Your task to perform on an android device: Empty the shopping cart on bestbuy. Add alienware area 51 to the cart on bestbuy, then select checkout. Image 0: 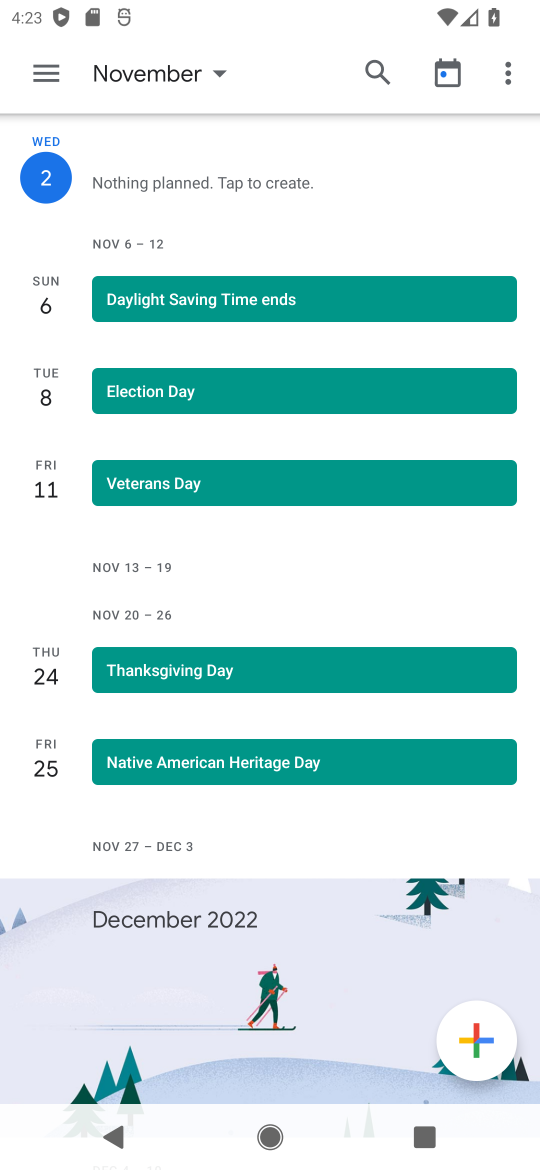
Step 0: press home button
Your task to perform on an android device: Empty the shopping cart on bestbuy. Add alienware area 51 to the cart on bestbuy, then select checkout. Image 1: 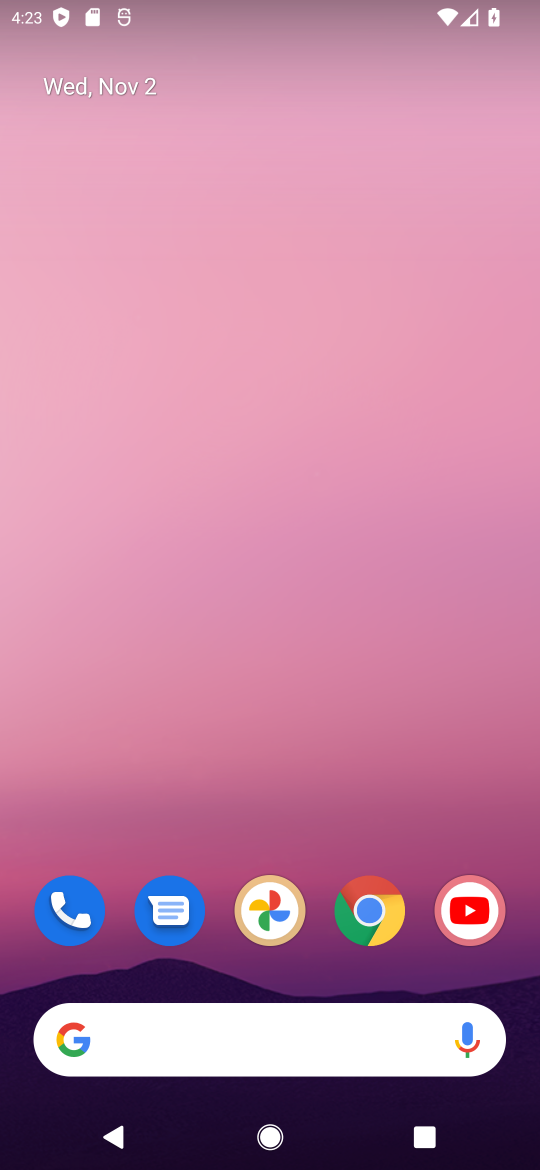
Step 1: click (377, 931)
Your task to perform on an android device: Empty the shopping cart on bestbuy. Add alienware area 51 to the cart on bestbuy, then select checkout. Image 2: 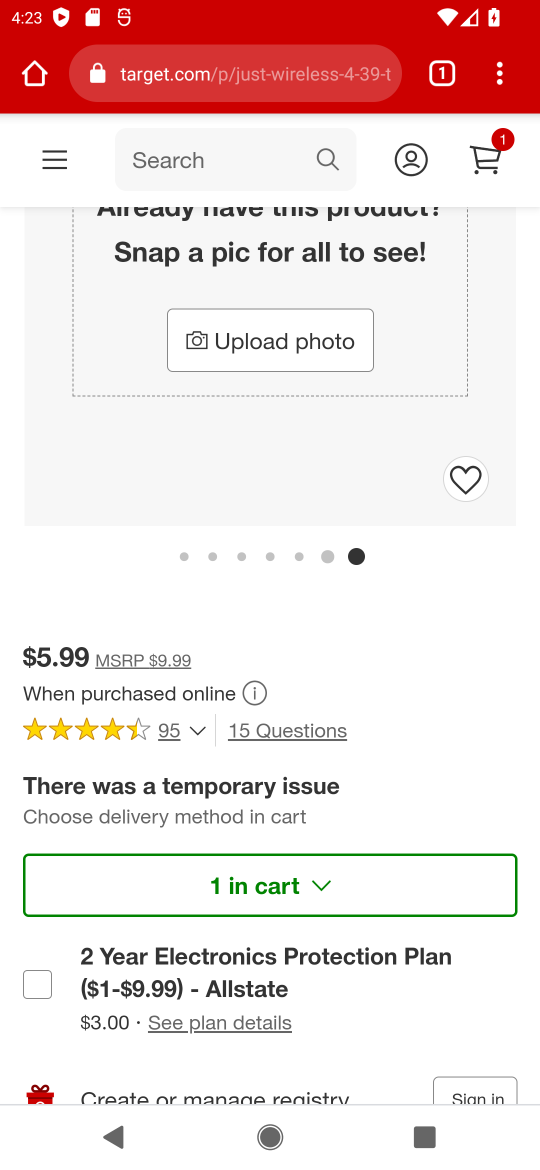
Step 2: click (134, 72)
Your task to perform on an android device: Empty the shopping cart on bestbuy. Add alienware area 51 to the cart on bestbuy, then select checkout. Image 3: 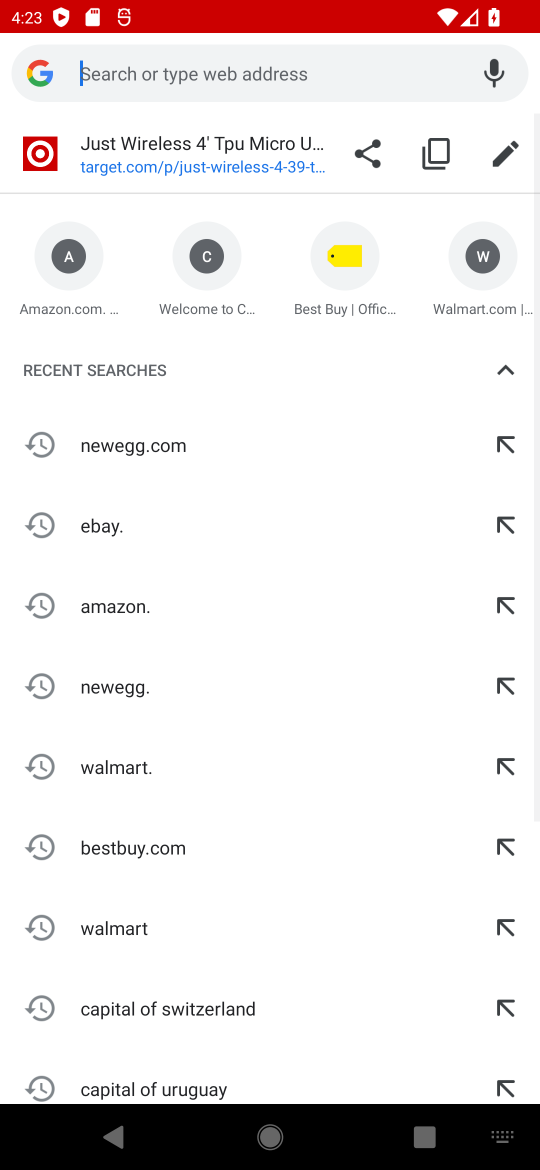
Step 3: click (368, 264)
Your task to perform on an android device: Empty the shopping cart on bestbuy. Add alienware area 51 to the cart on bestbuy, then select checkout. Image 4: 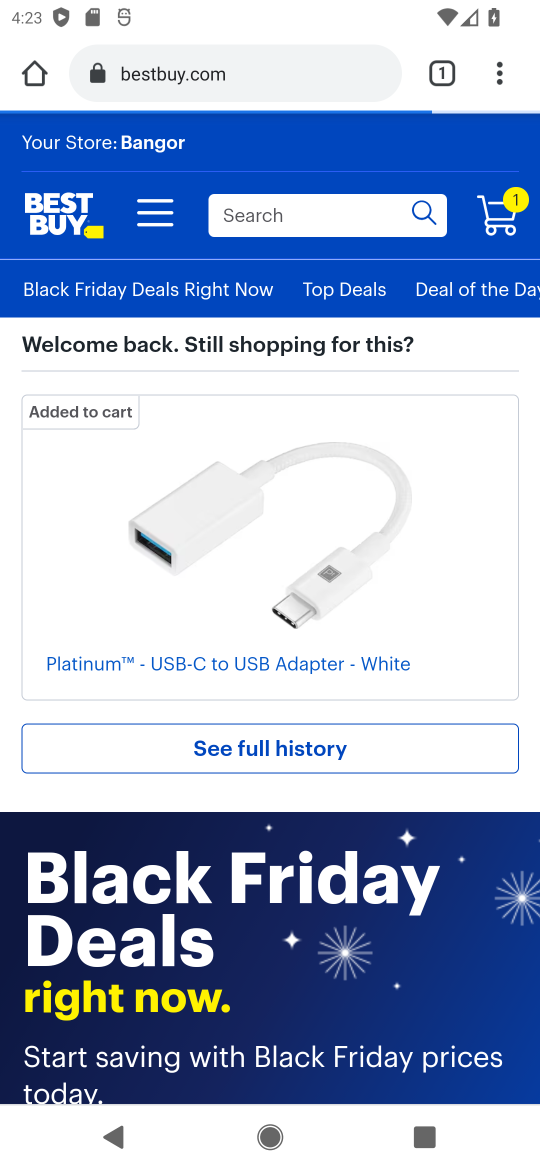
Step 4: click (245, 211)
Your task to perform on an android device: Empty the shopping cart on bestbuy. Add alienware area 51 to the cart on bestbuy, then select checkout. Image 5: 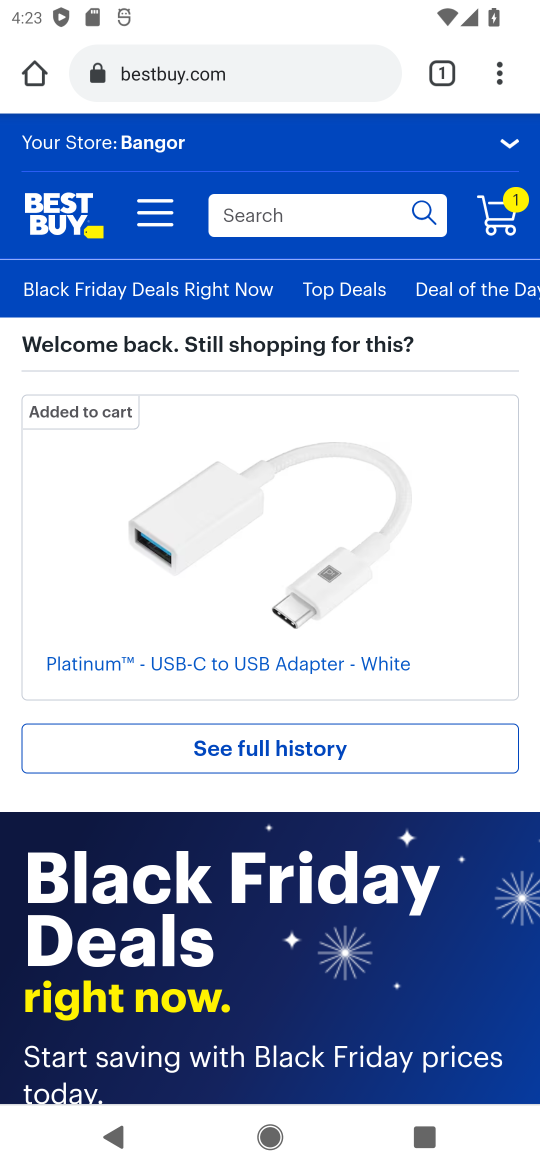
Step 5: click (293, 202)
Your task to perform on an android device: Empty the shopping cart on bestbuy. Add alienware area 51 to the cart on bestbuy, then select checkout. Image 6: 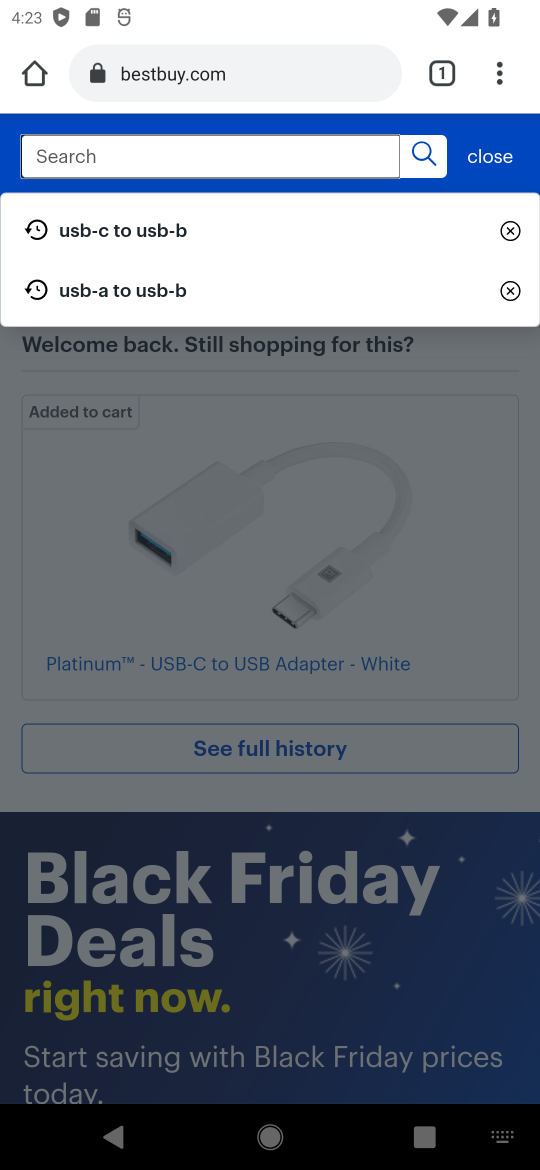
Step 6: type "alienware area 51 "
Your task to perform on an android device: Empty the shopping cart on bestbuy. Add alienware area 51 to the cart on bestbuy, then select checkout. Image 7: 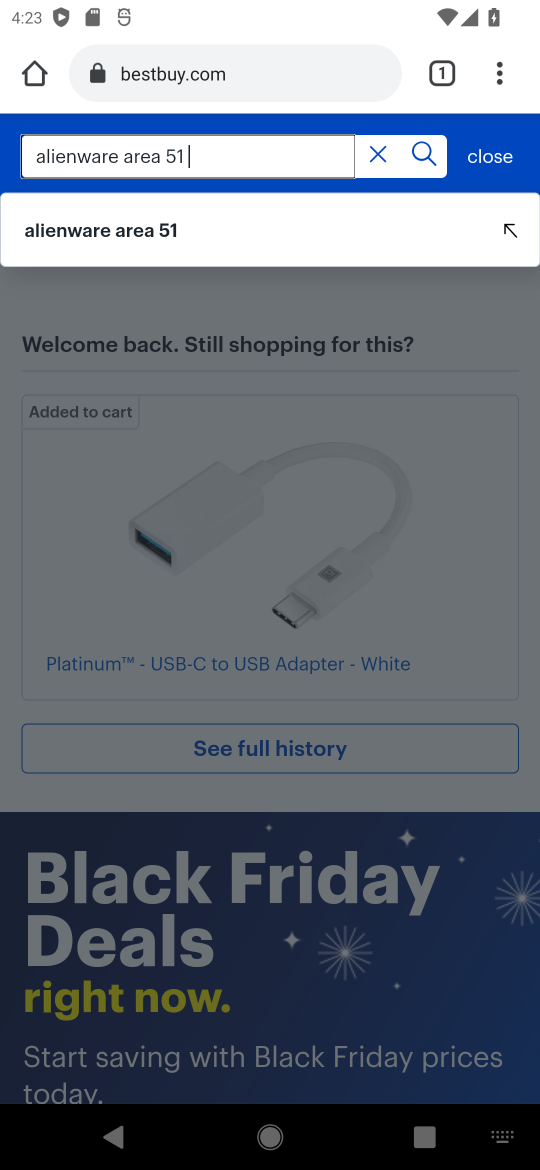
Step 7: click (150, 238)
Your task to perform on an android device: Empty the shopping cart on bestbuy. Add alienware area 51 to the cart on bestbuy, then select checkout. Image 8: 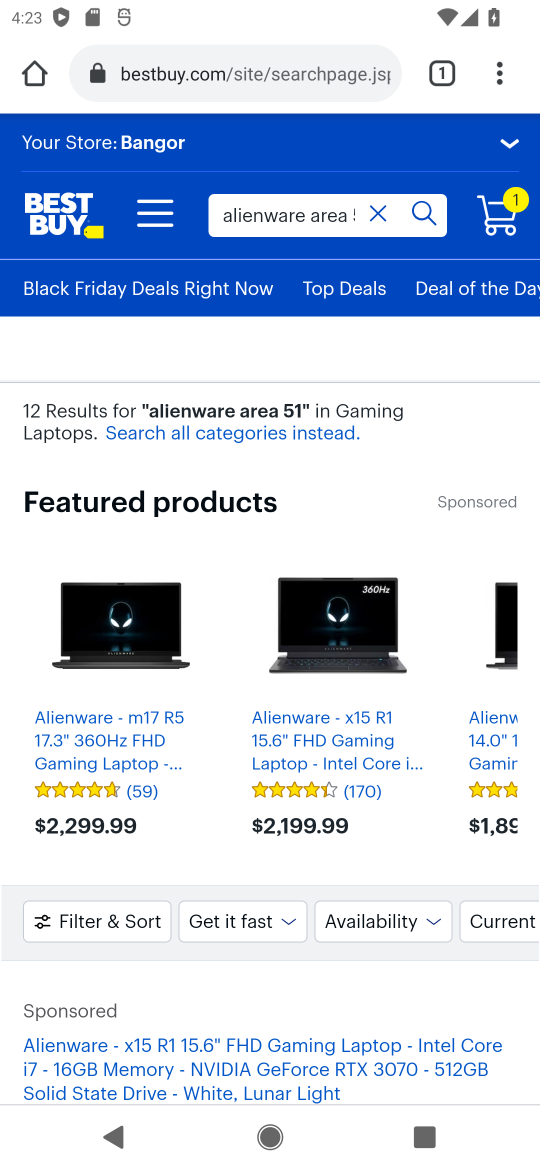
Step 8: click (302, 737)
Your task to perform on an android device: Empty the shopping cart on bestbuy. Add alienware area 51 to the cart on bestbuy, then select checkout. Image 9: 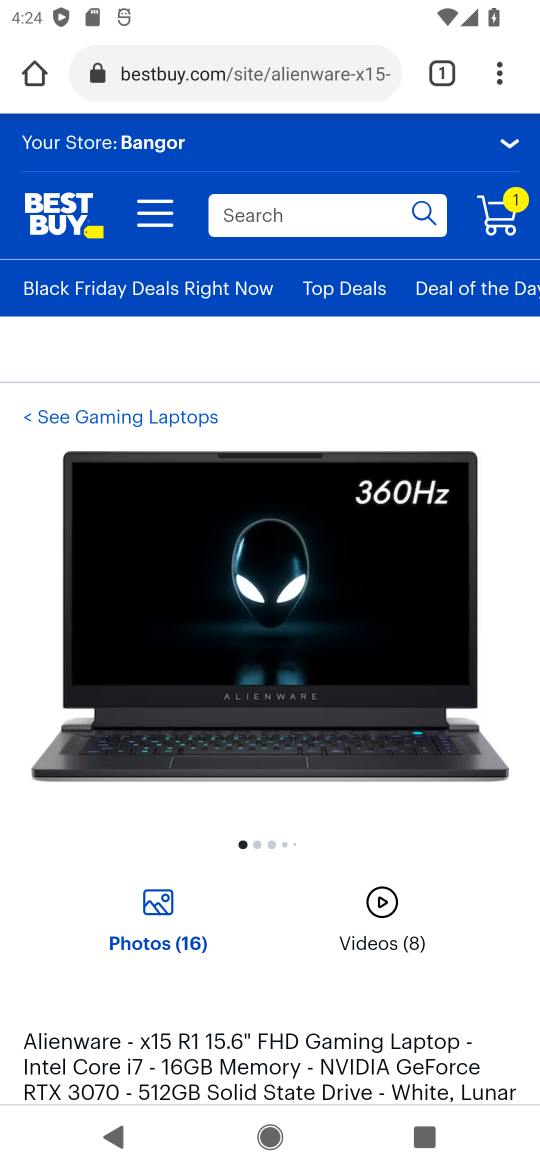
Step 9: drag from (303, 641) to (346, 345)
Your task to perform on an android device: Empty the shopping cart on bestbuy. Add alienware area 51 to the cart on bestbuy, then select checkout. Image 10: 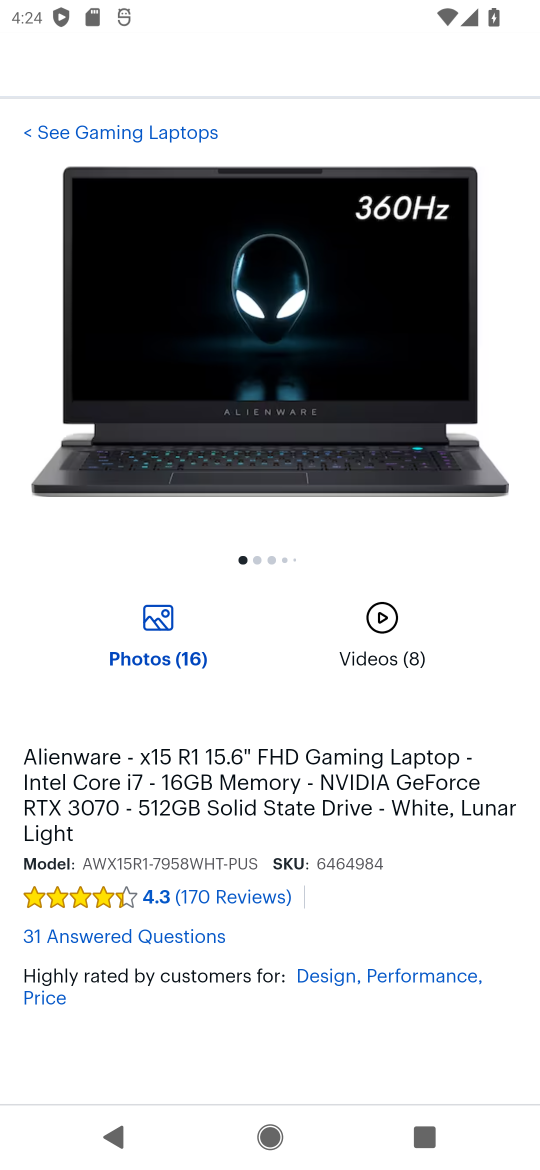
Step 10: drag from (321, 703) to (391, 287)
Your task to perform on an android device: Empty the shopping cart on bestbuy. Add alienware area 51 to the cart on bestbuy, then select checkout. Image 11: 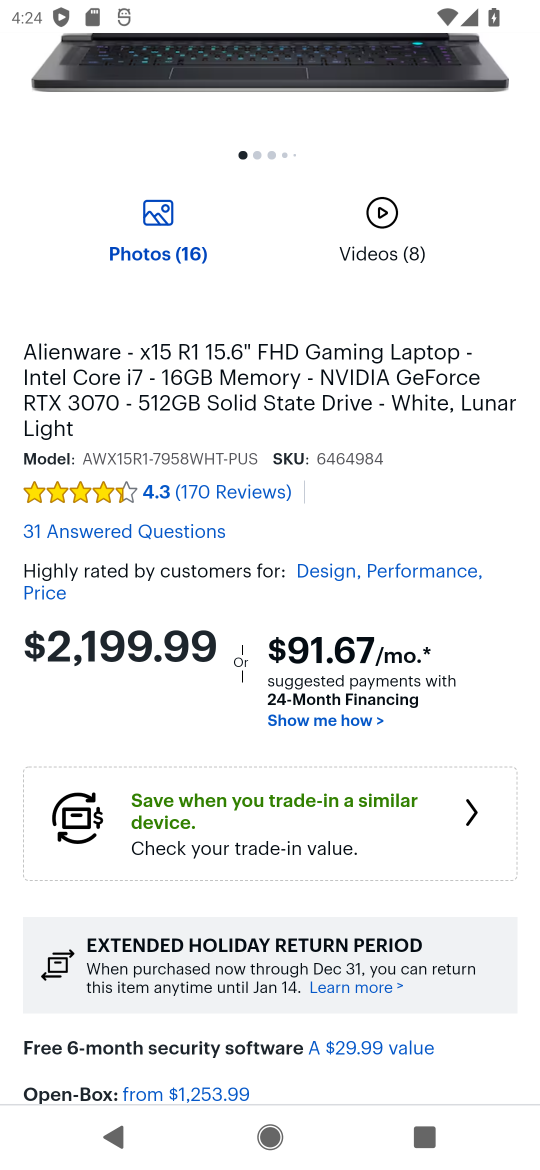
Step 11: drag from (341, 750) to (396, 244)
Your task to perform on an android device: Empty the shopping cart on bestbuy. Add alienware area 51 to the cart on bestbuy, then select checkout. Image 12: 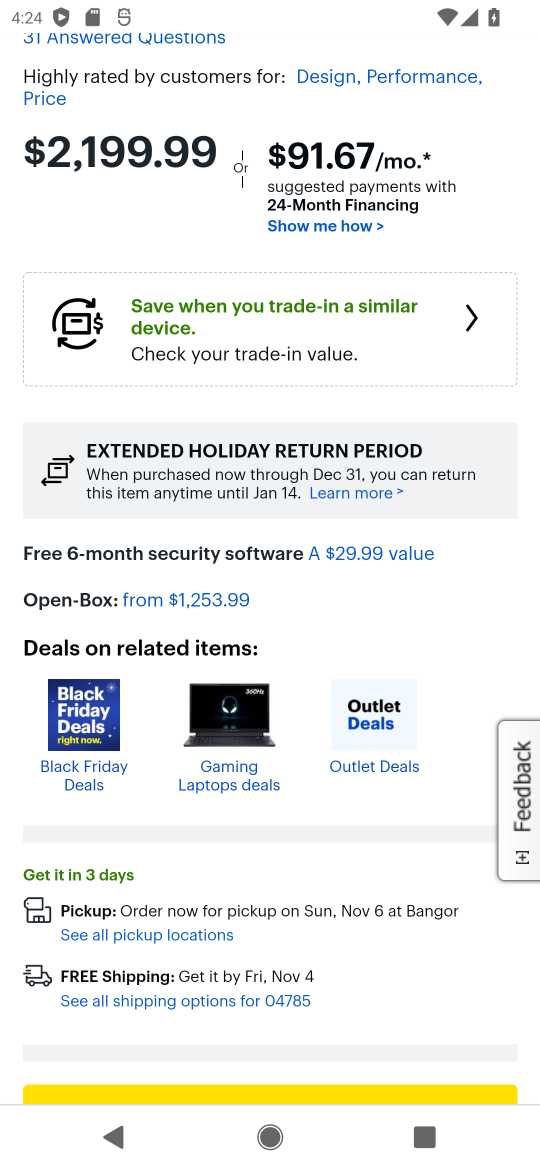
Step 12: drag from (299, 792) to (357, 350)
Your task to perform on an android device: Empty the shopping cart on bestbuy. Add alienware area 51 to the cart on bestbuy, then select checkout. Image 13: 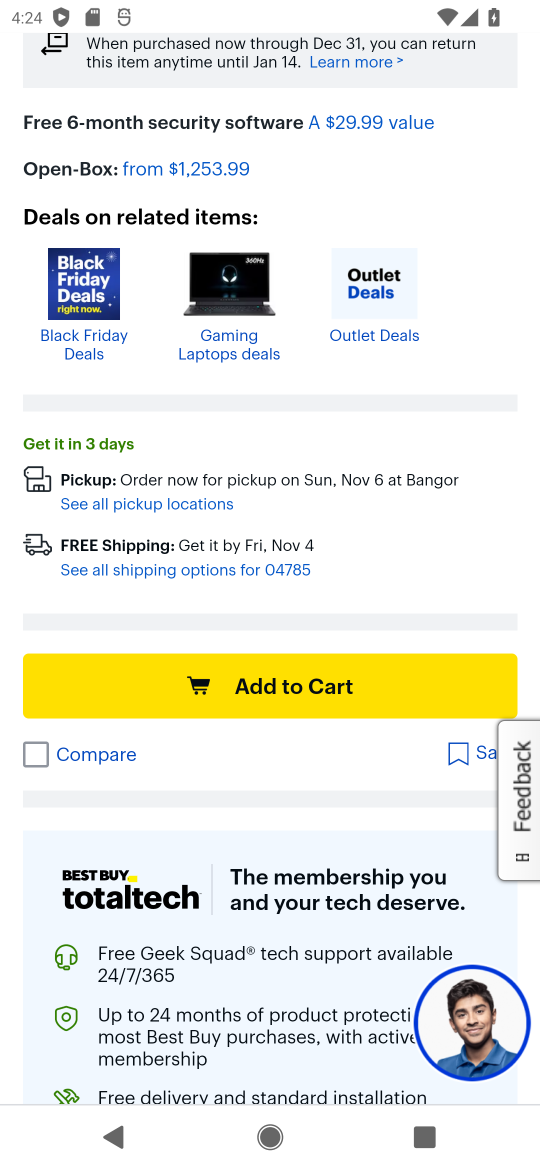
Step 13: click (303, 682)
Your task to perform on an android device: Empty the shopping cart on bestbuy. Add alienware area 51 to the cart on bestbuy, then select checkout. Image 14: 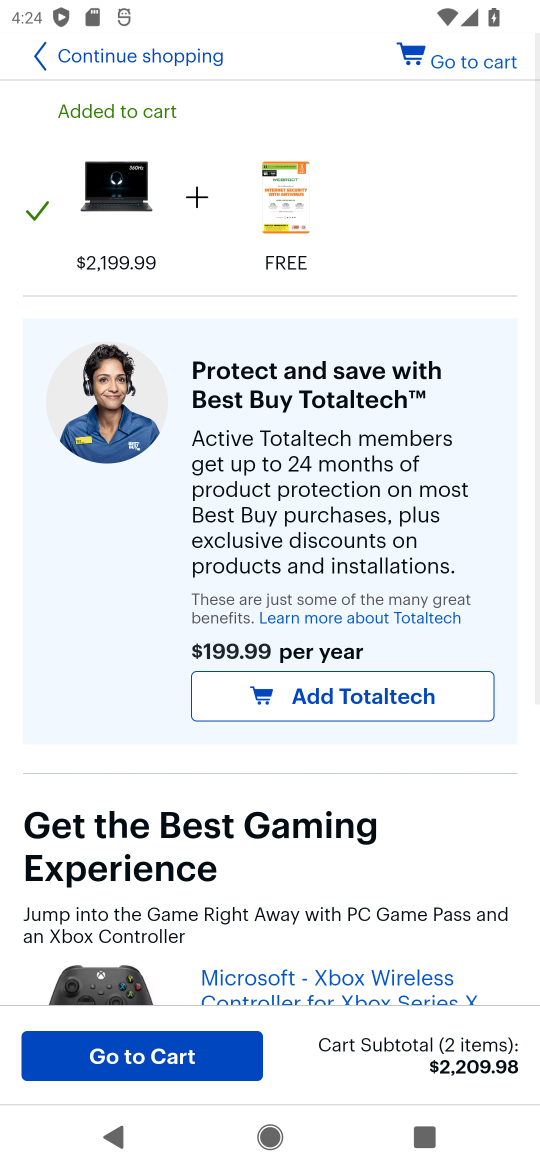
Step 14: click (163, 1041)
Your task to perform on an android device: Empty the shopping cart on bestbuy. Add alienware area 51 to the cart on bestbuy, then select checkout. Image 15: 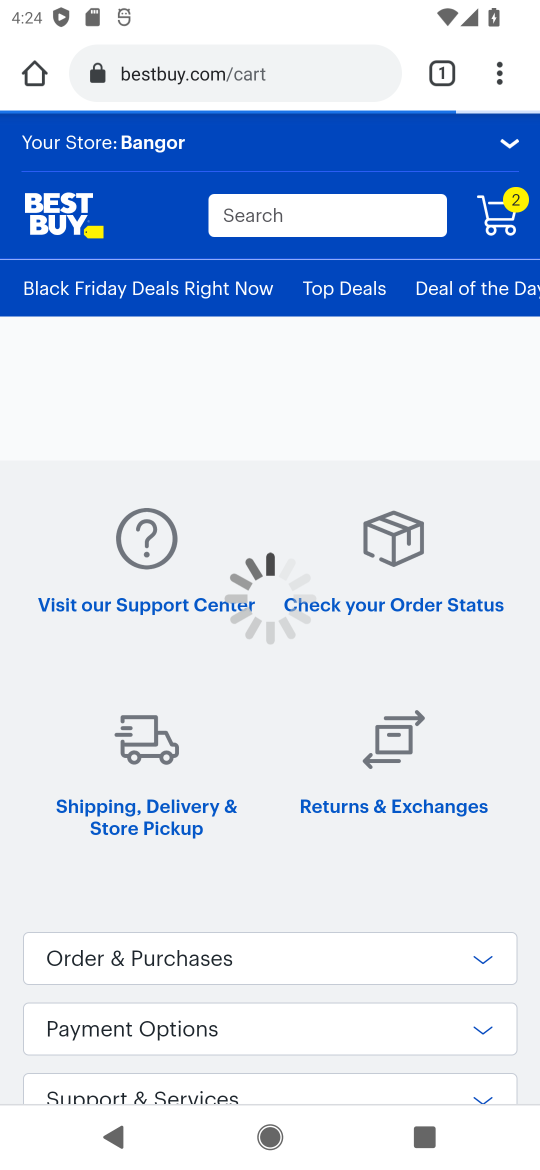
Step 15: click (495, 218)
Your task to perform on an android device: Empty the shopping cart on bestbuy. Add alienware area 51 to the cart on bestbuy, then select checkout. Image 16: 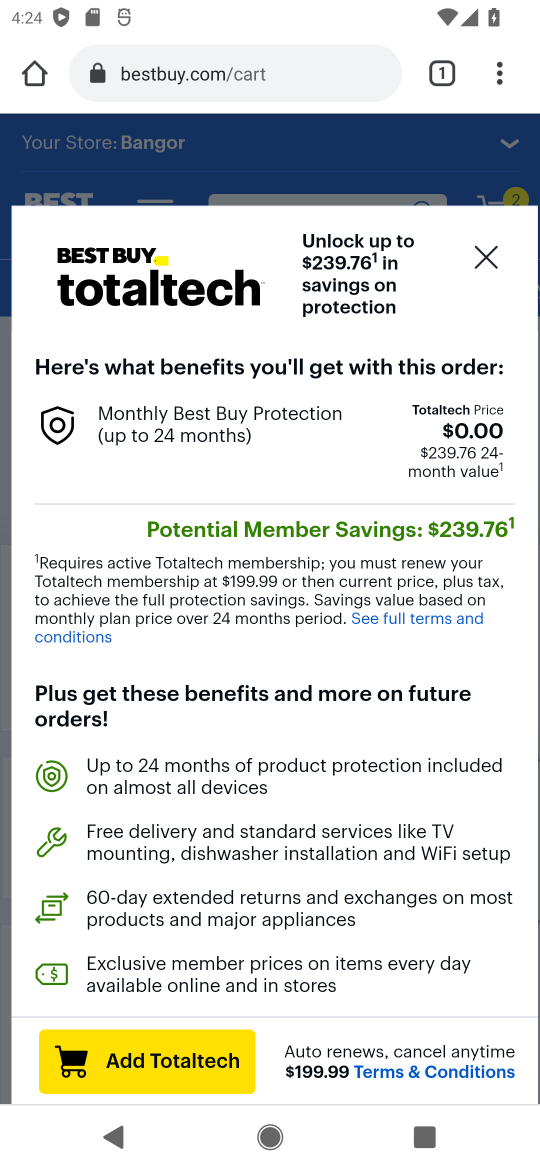
Step 16: click (498, 252)
Your task to perform on an android device: Empty the shopping cart on bestbuy. Add alienware area 51 to the cart on bestbuy, then select checkout. Image 17: 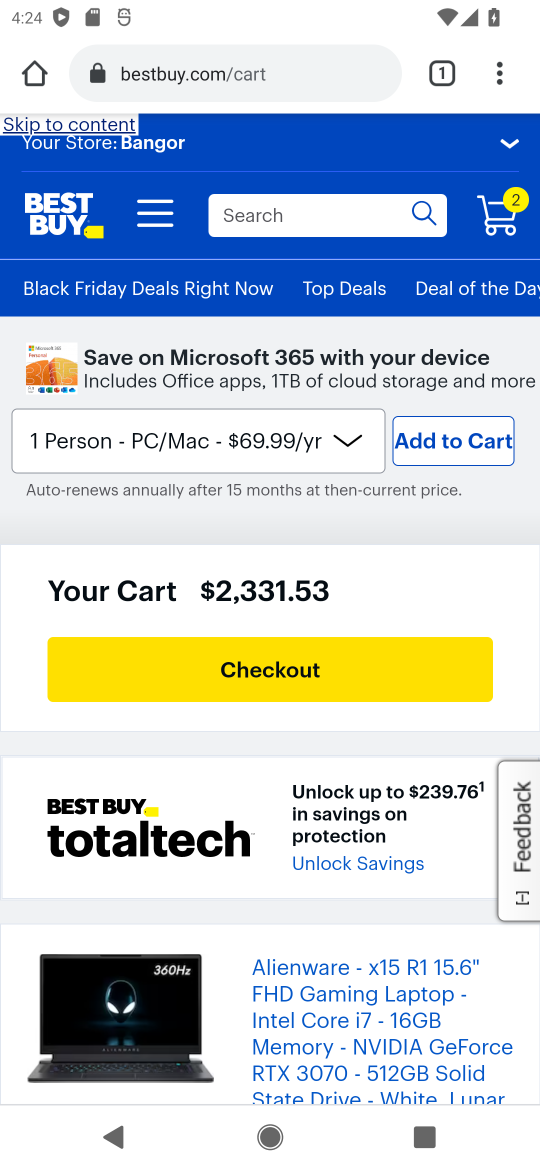
Step 17: click (289, 657)
Your task to perform on an android device: Empty the shopping cart on bestbuy. Add alienware area 51 to the cart on bestbuy, then select checkout. Image 18: 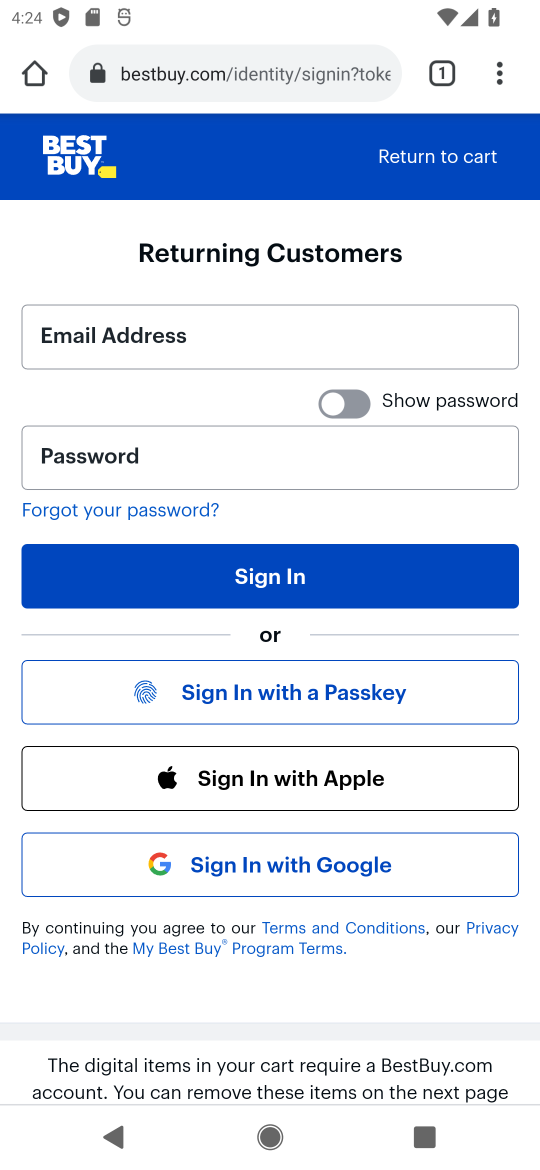
Step 18: press back button
Your task to perform on an android device: Empty the shopping cart on bestbuy. Add alienware area 51 to the cart on bestbuy, then select checkout. Image 19: 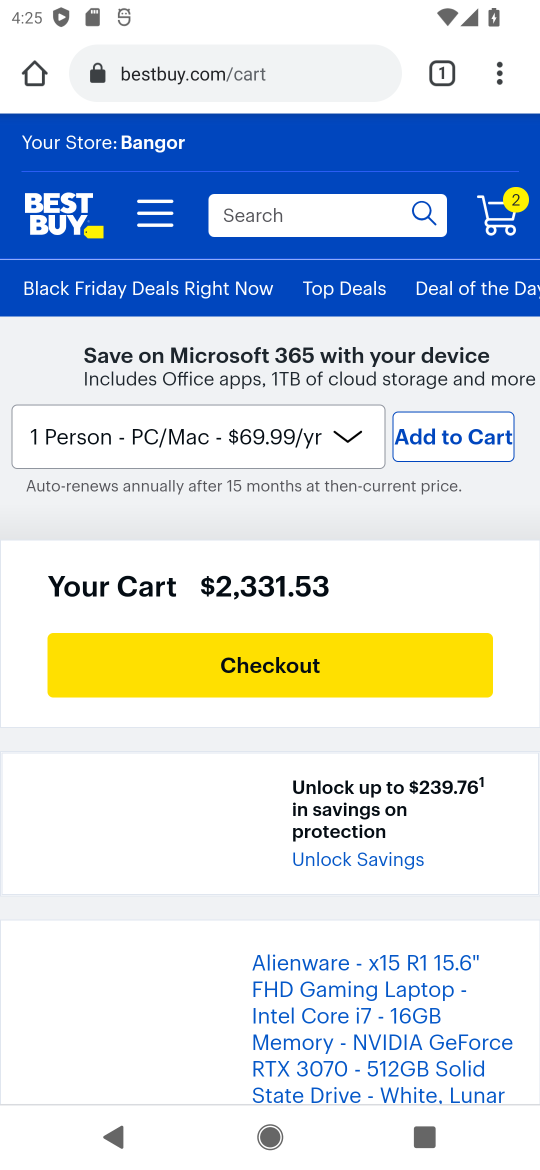
Step 19: click (483, 213)
Your task to perform on an android device: Empty the shopping cart on bestbuy. Add alienware area 51 to the cart on bestbuy, then select checkout. Image 20: 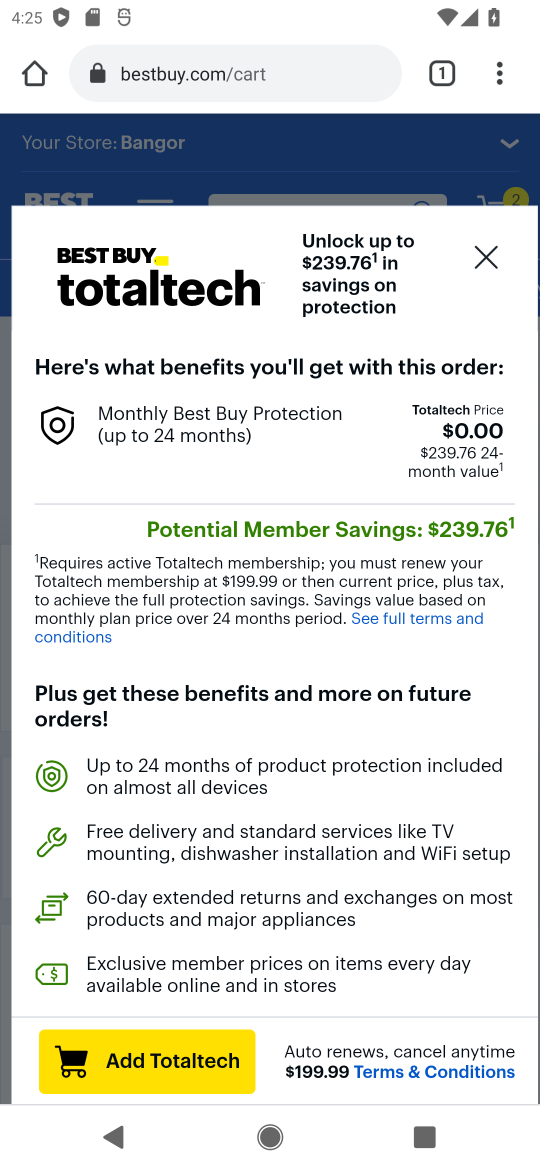
Step 20: click (484, 275)
Your task to perform on an android device: Empty the shopping cart on bestbuy. Add alienware area 51 to the cart on bestbuy, then select checkout. Image 21: 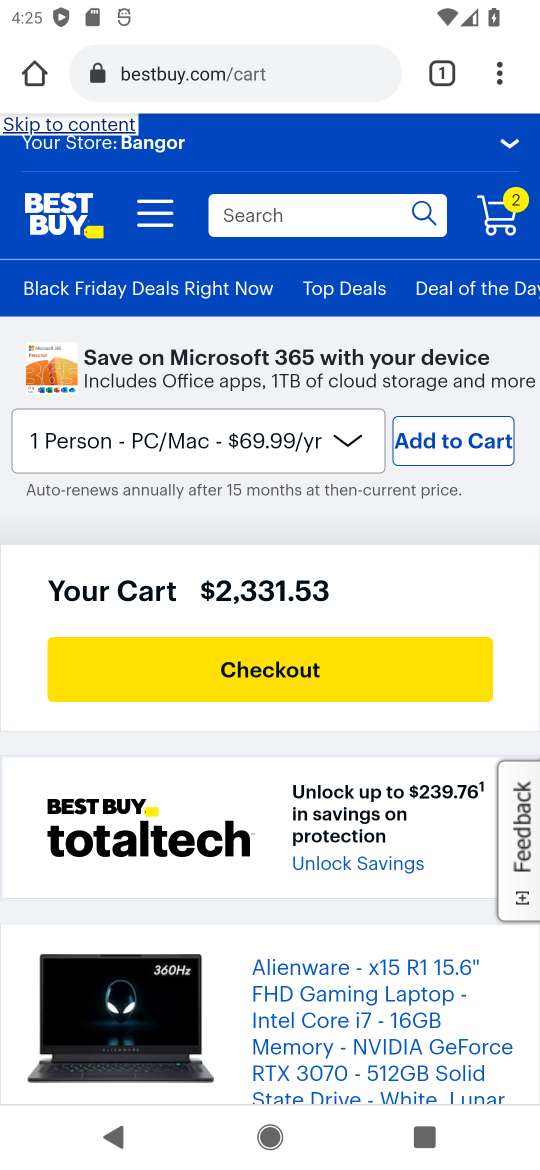
Step 21: task complete